Your task to perform on an android device: change the clock display to show seconds Image 0: 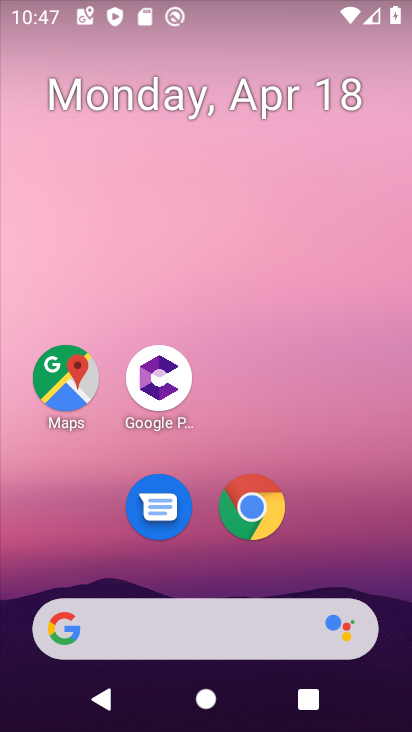
Step 0: drag from (306, 575) to (371, 145)
Your task to perform on an android device: change the clock display to show seconds Image 1: 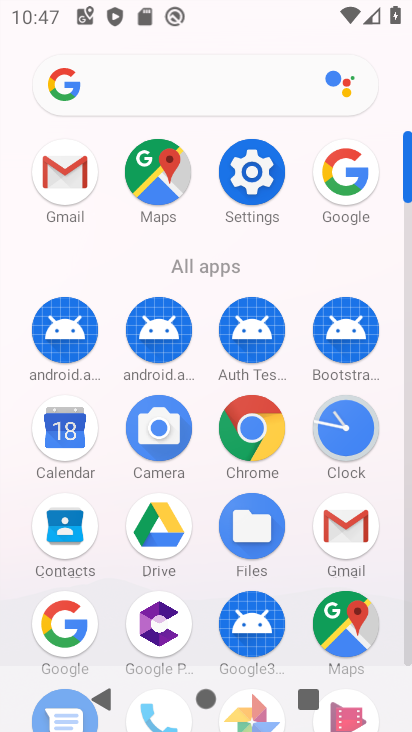
Step 1: click (325, 428)
Your task to perform on an android device: change the clock display to show seconds Image 2: 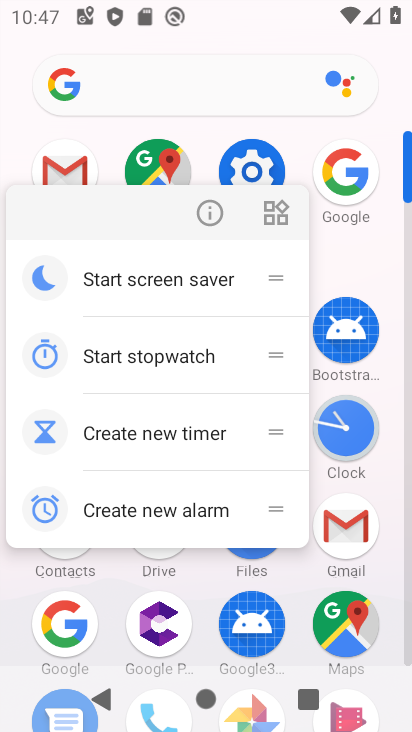
Step 2: click (327, 428)
Your task to perform on an android device: change the clock display to show seconds Image 3: 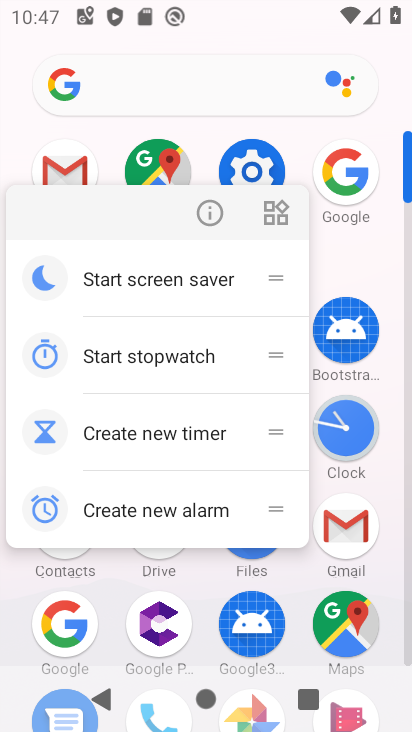
Step 3: click (333, 431)
Your task to perform on an android device: change the clock display to show seconds Image 4: 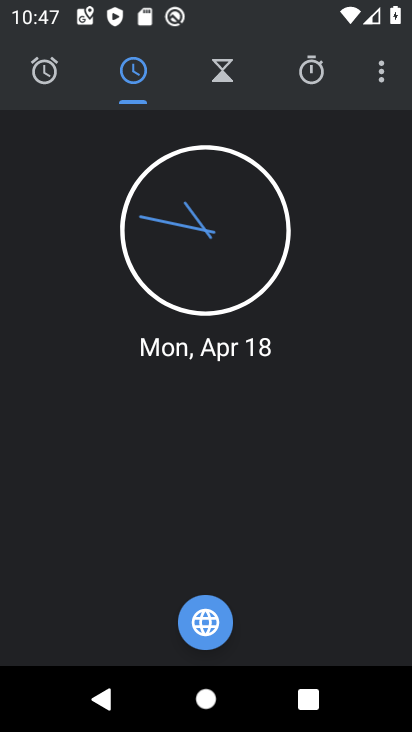
Step 4: click (370, 66)
Your task to perform on an android device: change the clock display to show seconds Image 5: 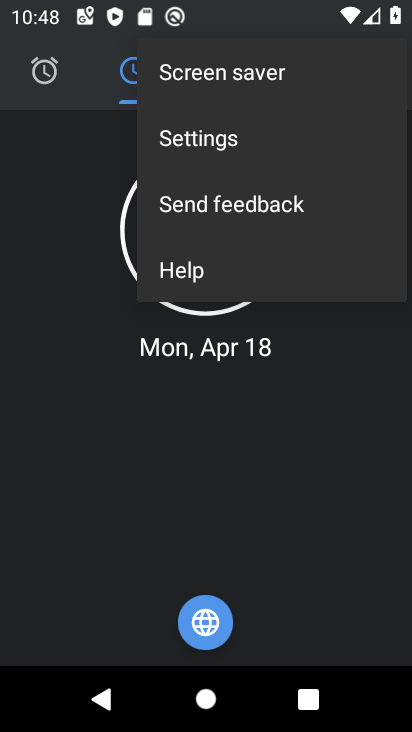
Step 5: click (341, 128)
Your task to perform on an android device: change the clock display to show seconds Image 6: 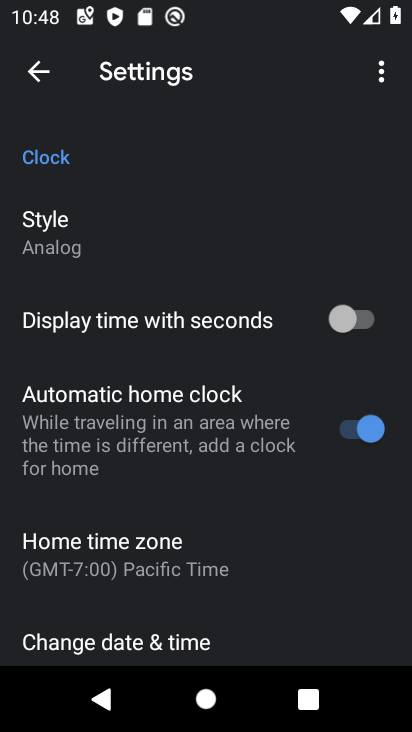
Step 6: click (343, 320)
Your task to perform on an android device: change the clock display to show seconds Image 7: 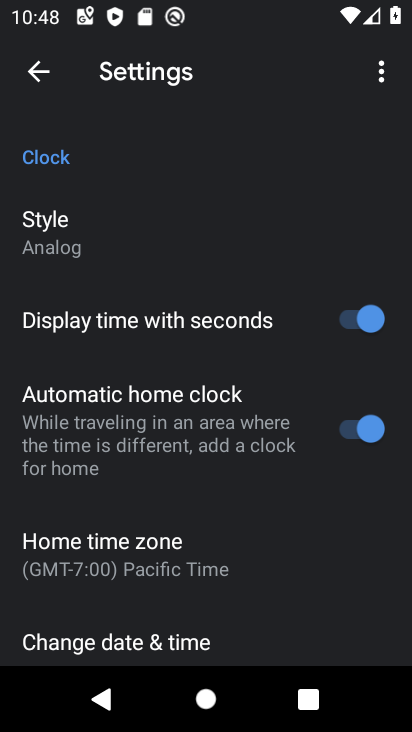
Step 7: task complete